Your task to perform on an android device: turn pop-ups on in chrome Image 0: 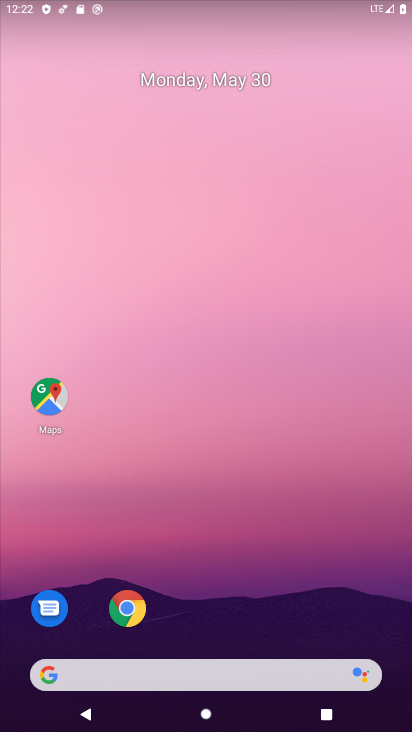
Step 0: click (132, 593)
Your task to perform on an android device: turn pop-ups on in chrome Image 1: 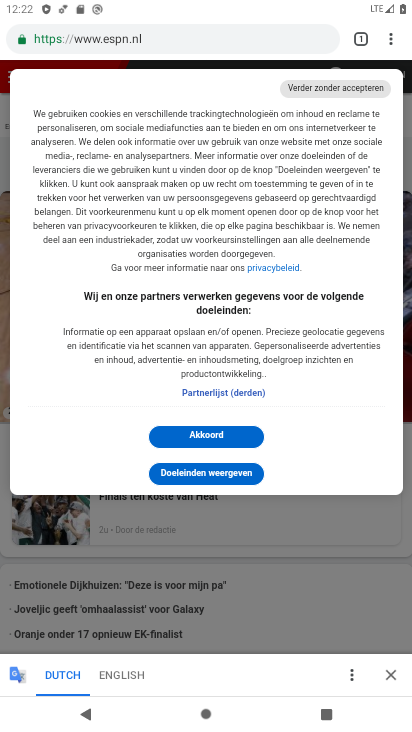
Step 1: click (391, 41)
Your task to perform on an android device: turn pop-ups on in chrome Image 2: 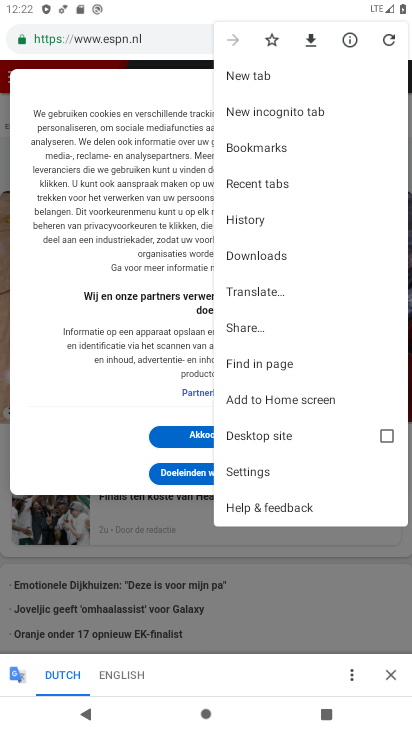
Step 2: click (258, 466)
Your task to perform on an android device: turn pop-ups on in chrome Image 3: 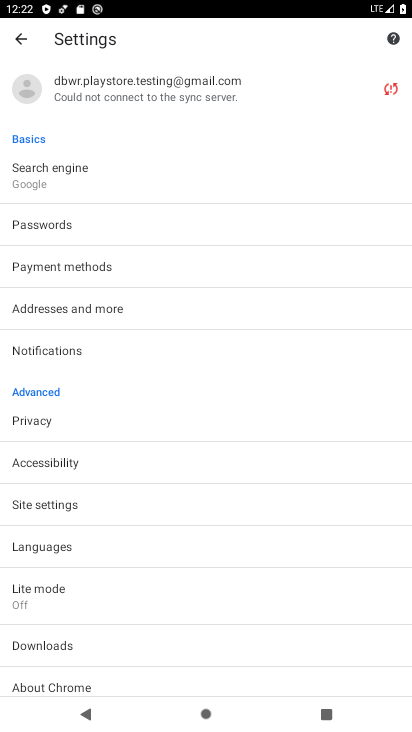
Step 3: click (79, 510)
Your task to perform on an android device: turn pop-ups on in chrome Image 4: 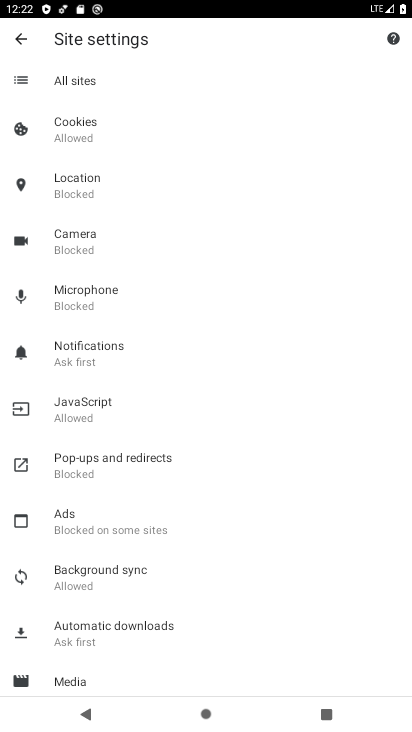
Step 4: click (148, 476)
Your task to perform on an android device: turn pop-ups on in chrome Image 5: 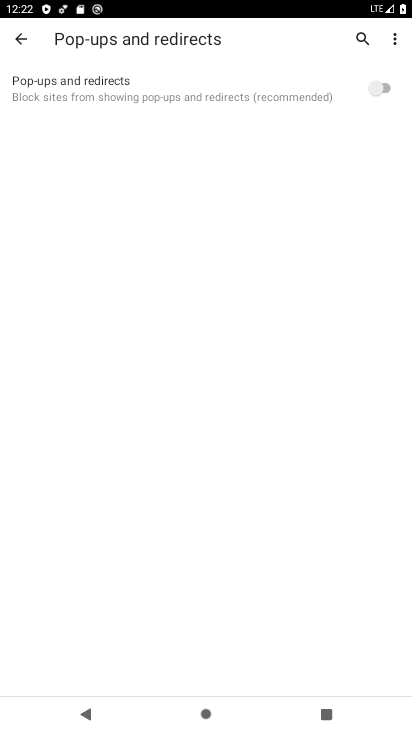
Step 5: click (402, 87)
Your task to perform on an android device: turn pop-ups on in chrome Image 6: 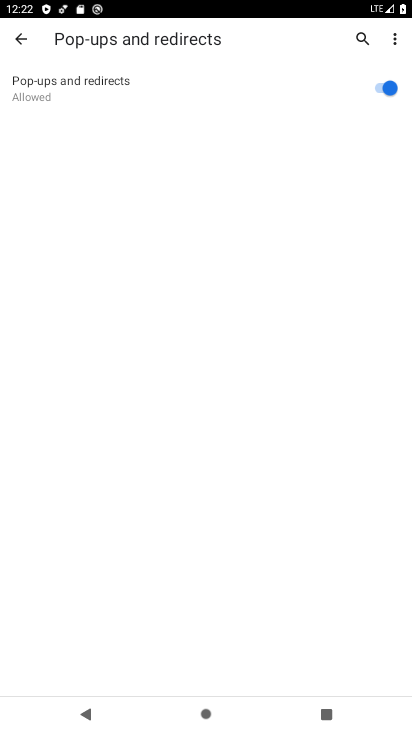
Step 6: task complete